Your task to perform on an android device: choose inbox layout in the gmail app Image 0: 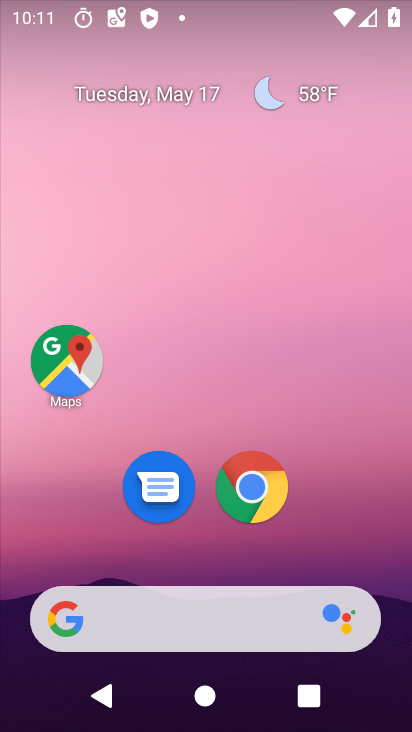
Step 0: drag from (214, 723) to (214, 73)
Your task to perform on an android device: choose inbox layout in the gmail app Image 1: 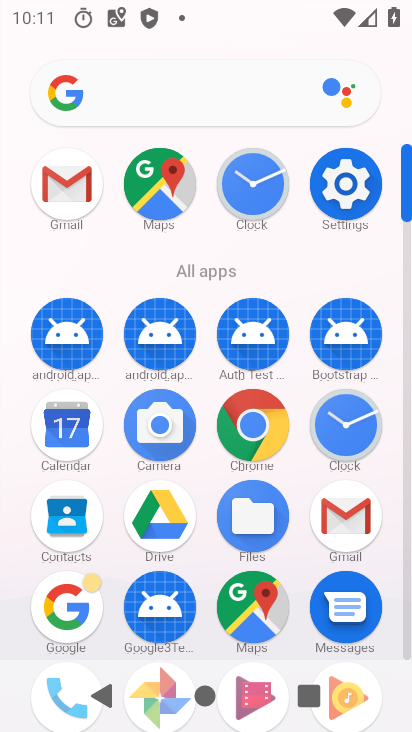
Step 1: click (341, 523)
Your task to perform on an android device: choose inbox layout in the gmail app Image 2: 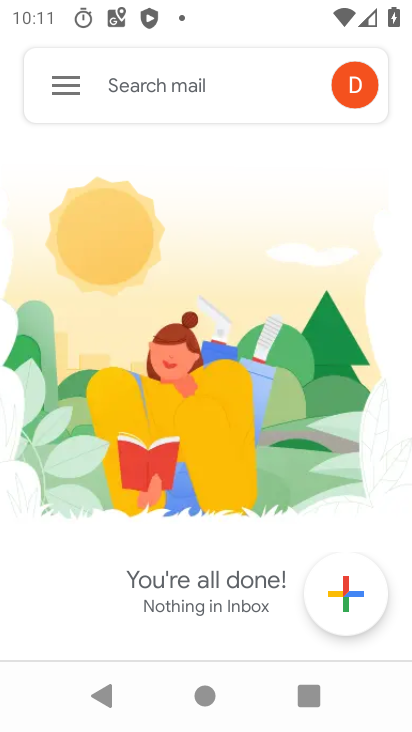
Step 2: click (58, 82)
Your task to perform on an android device: choose inbox layout in the gmail app Image 3: 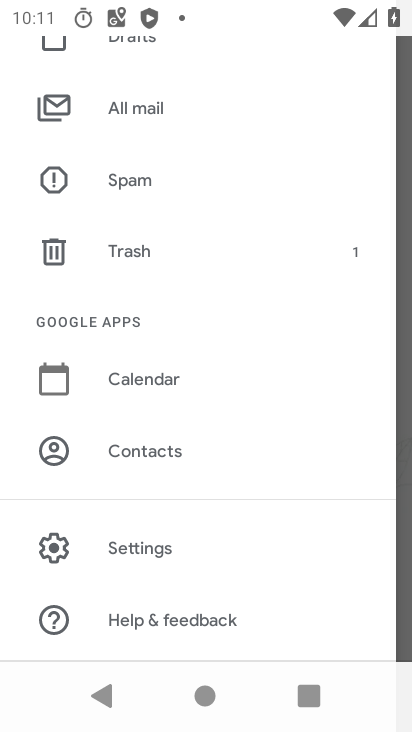
Step 3: click (139, 548)
Your task to perform on an android device: choose inbox layout in the gmail app Image 4: 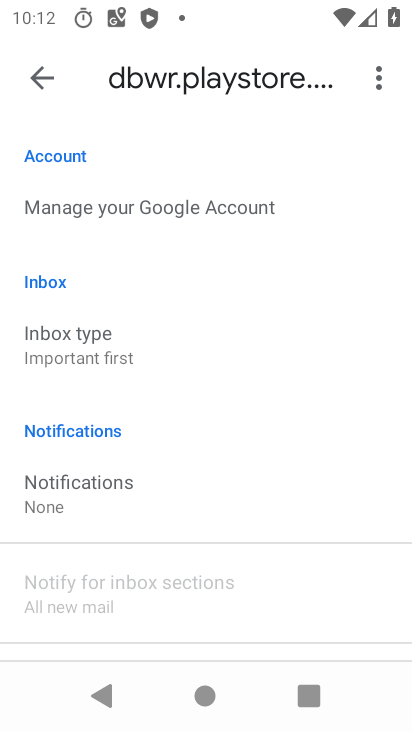
Step 4: click (86, 344)
Your task to perform on an android device: choose inbox layout in the gmail app Image 5: 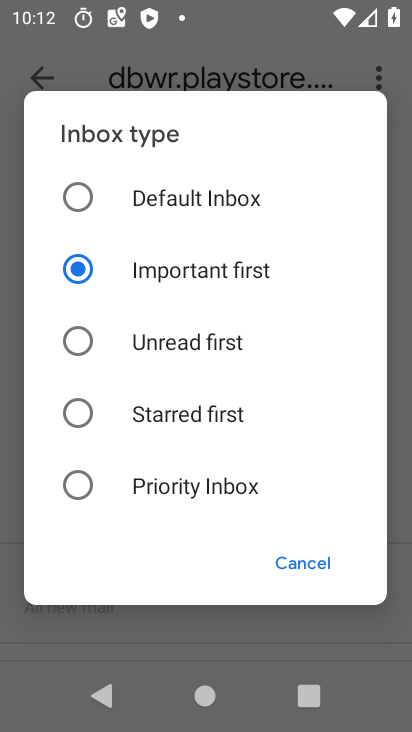
Step 5: click (81, 192)
Your task to perform on an android device: choose inbox layout in the gmail app Image 6: 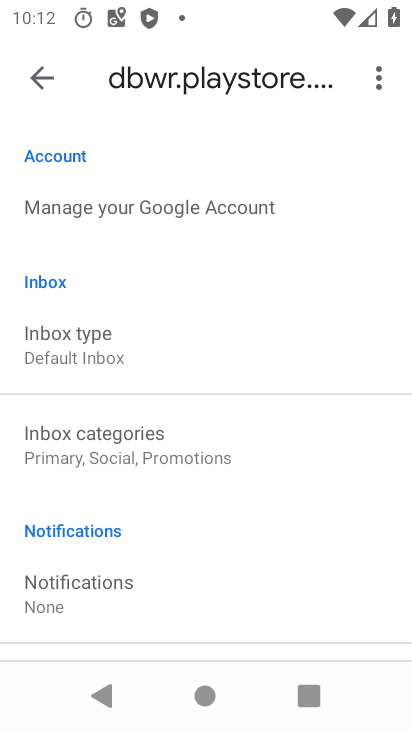
Step 6: task complete